Your task to perform on an android device: set the timer Image 0: 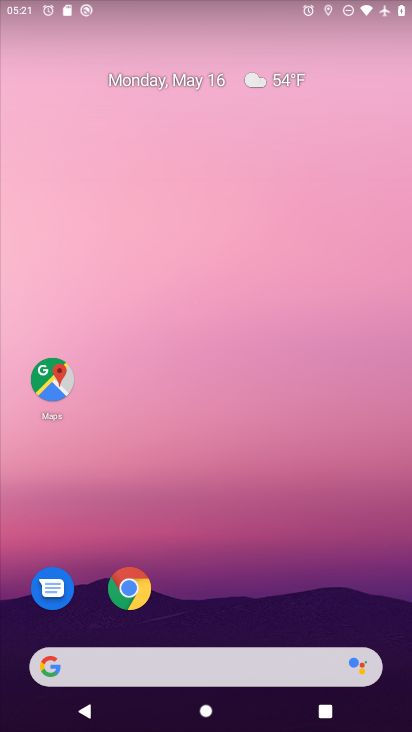
Step 0: drag from (205, 518) to (180, 81)
Your task to perform on an android device: set the timer Image 1: 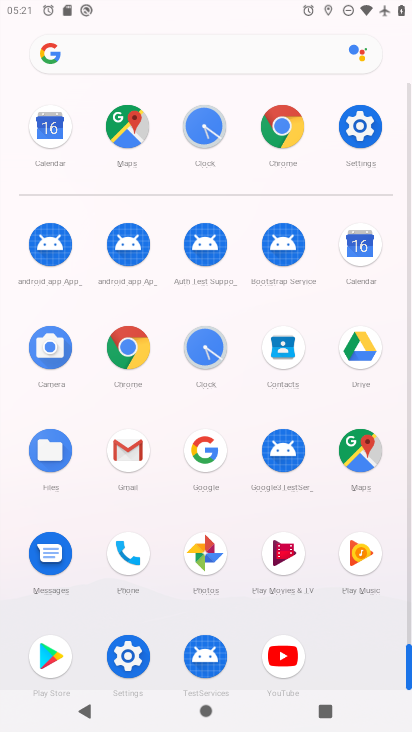
Step 1: drag from (27, 527) to (25, 185)
Your task to perform on an android device: set the timer Image 2: 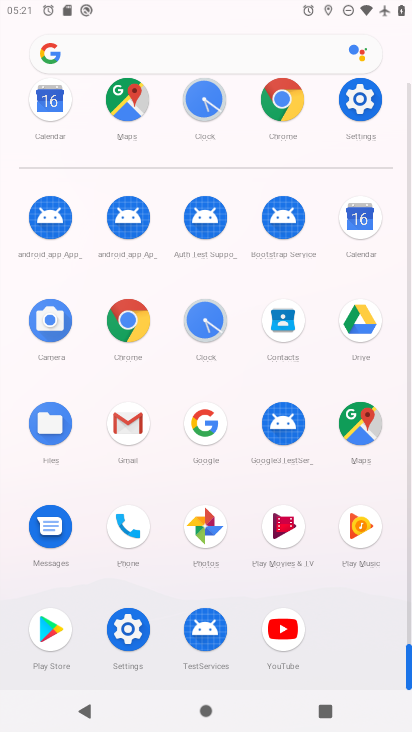
Step 2: click (205, 316)
Your task to perform on an android device: set the timer Image 3: 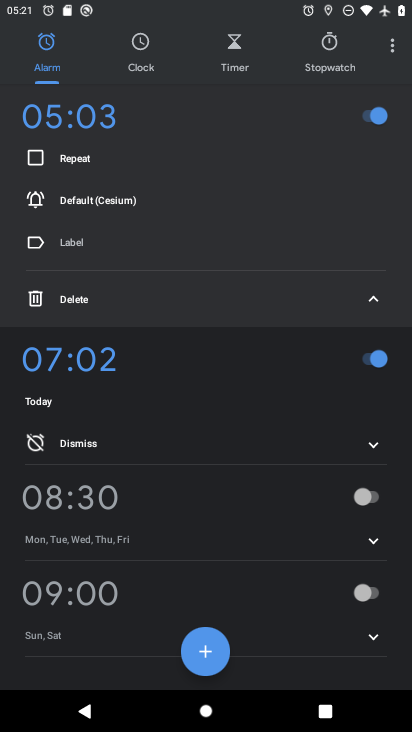
Step 3: click (245, 55)
Your task to perform on an android device: set the timer Image 4: 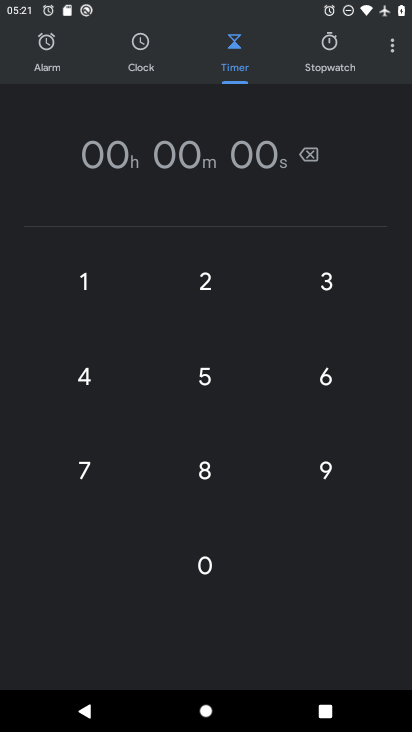
Step 4: click (203, 276)
Your task to perform on an android device: set the timer Image 5: 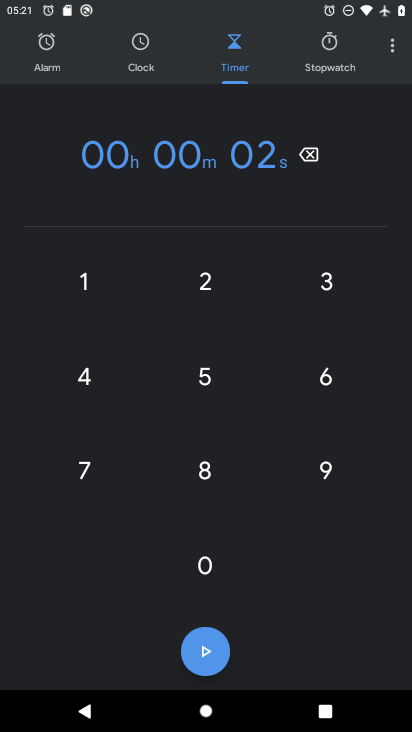
Step 5: click (200, 370)
Your task to perform on an android device: set the timer Image 6: 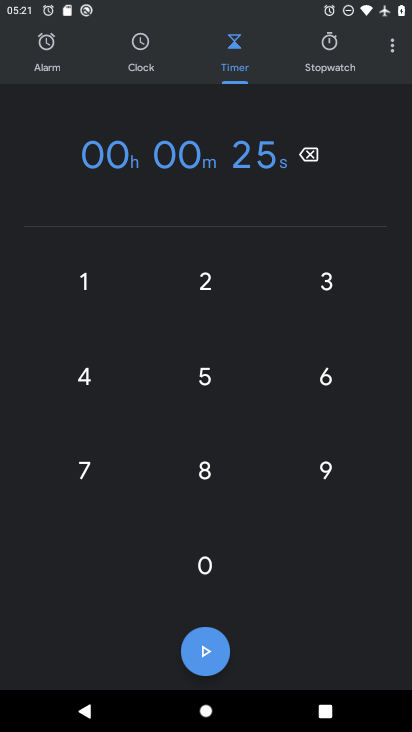
Step 6: click (104, 363)
Your task to perform on an android device: set the timer Image 7: 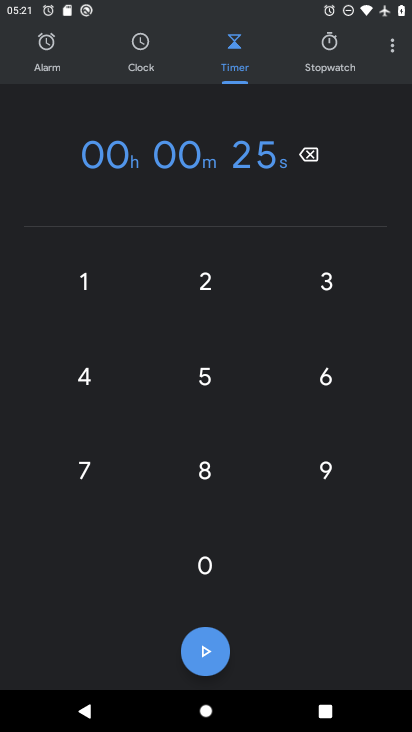
Step 7: drag from (103, 371) to (88, 420)
Your task to perform on an android device: set the timer Image 8: 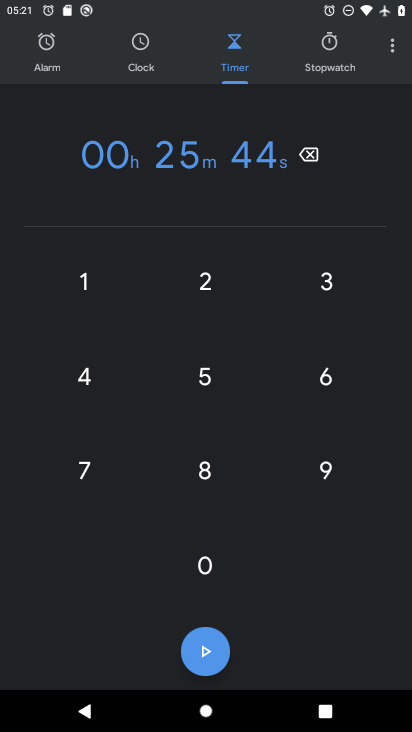
Step 8: click (75, 462)
Your task to perform on an android device: set the timer Image 9: 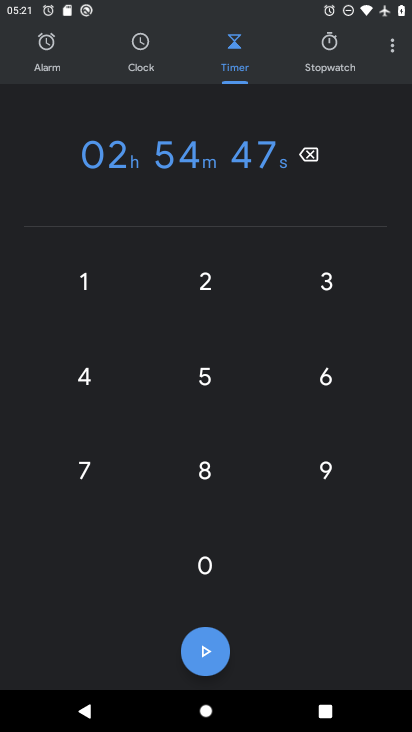
Step 9: click (201, 642)
Your task to perform on an android device: set the timer Image 10: 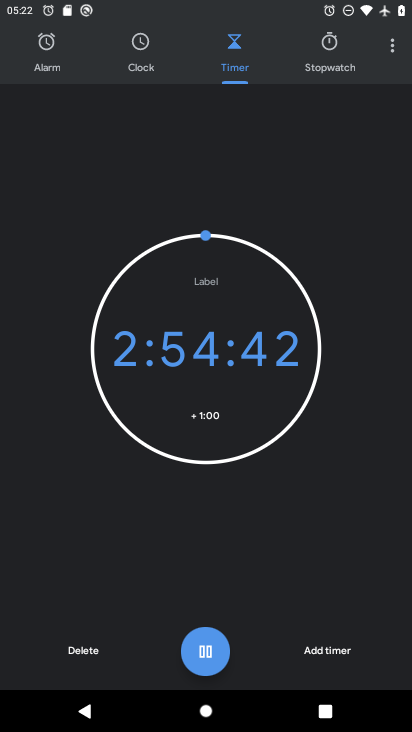
Step 10: task complete